Your task to perform on an android device: toggle location history Image 0: 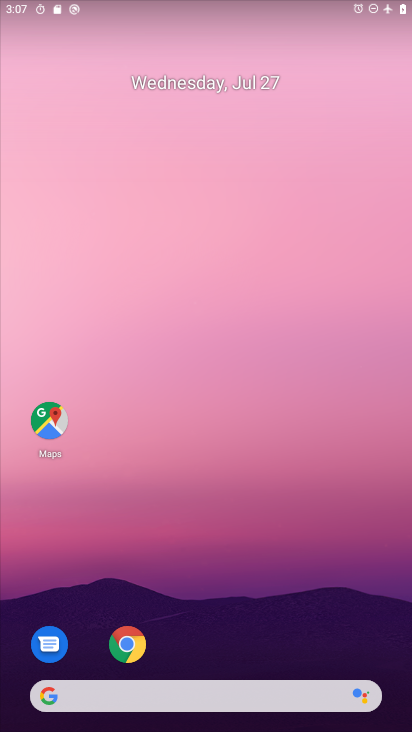
Step 0: drag from (185, 640) to (247, 222)
Your task to perform on an android device: toggle location history Image 1: 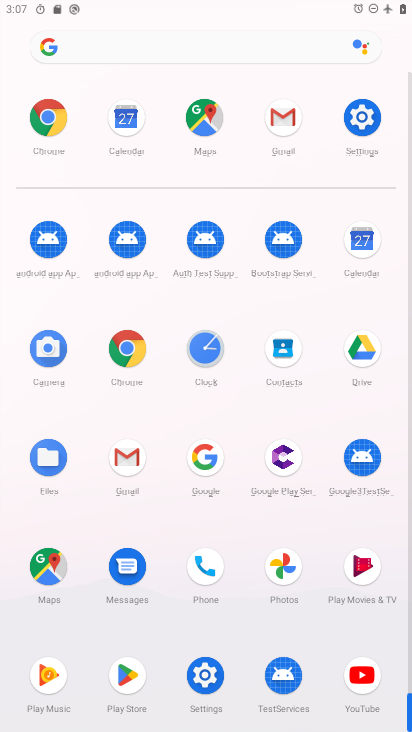
Step 1: click (195, 670)
Your task to perform on an android device: toggle location history Image 2: 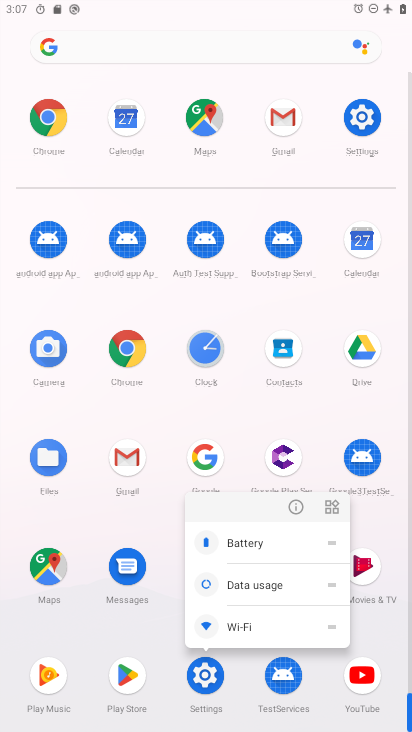
Step 2: click (294, 502)
Your task to perform on an android device: toggle location history Image 3: 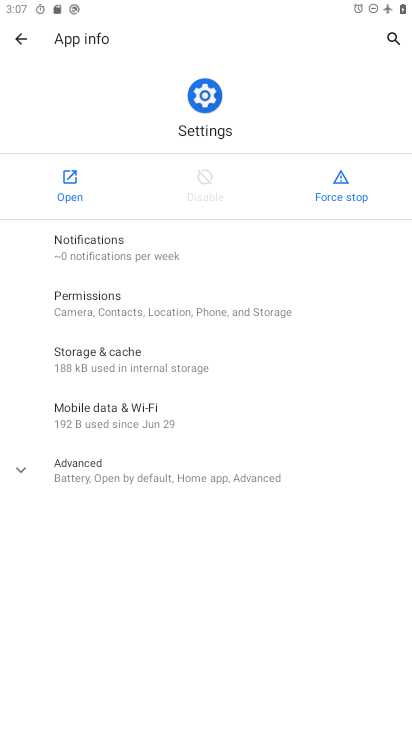
Step 3: click (65, 176)
Your task to perform on an android device: toggle location history Image 4: 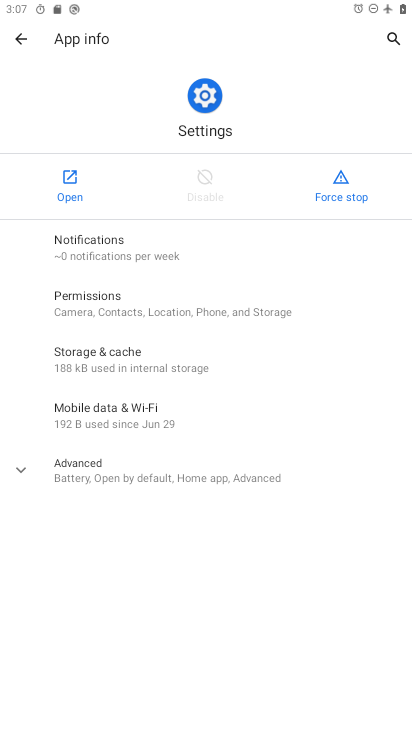
Step 4: click (65, 176)
Your task to perform on an android device: toggle location history Image 5: 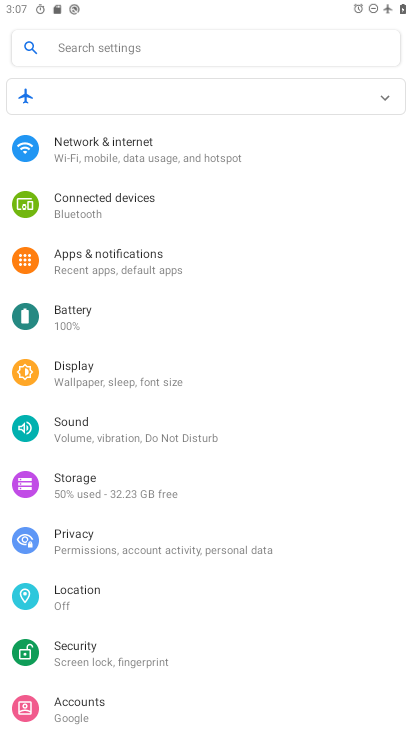
Step 5: click (91, 588)
Your task to perform on an android device: toggle location history Image 6: 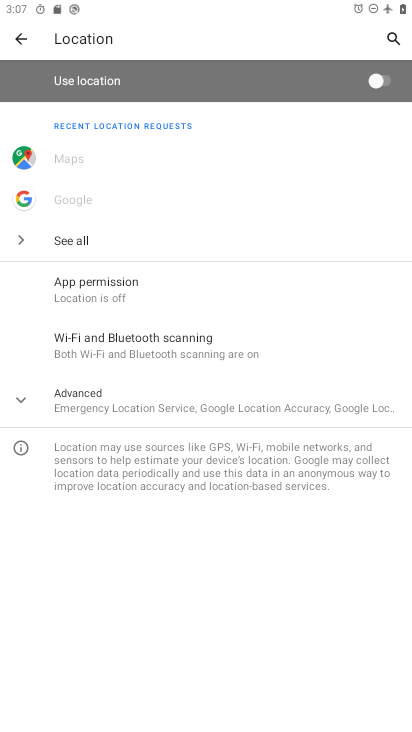
Step 6: click (87, 394)
Your task to perform on an android device: toggle location history Image 7: 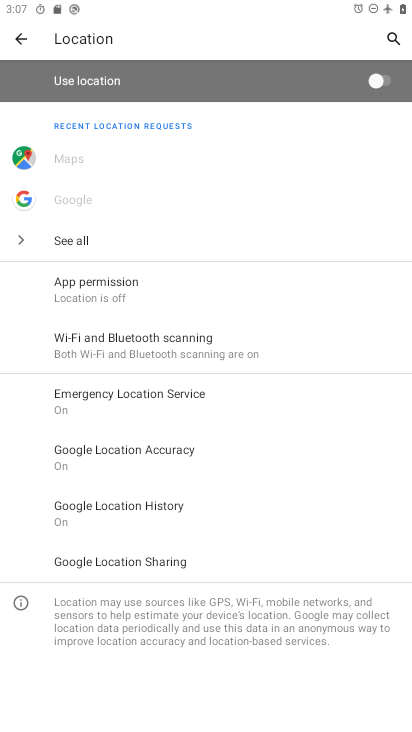
Step 7: click (157, 517)
Your task to perform on an android device: toggle location history Image 8: 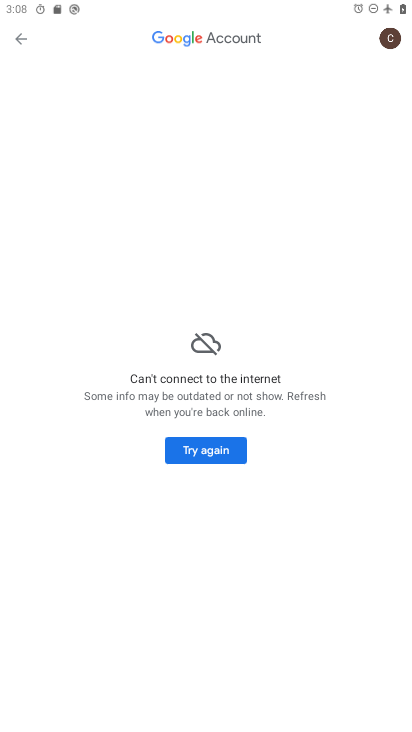
Step 8: drag from (167, 617) to (178, 385)
Your task to perform on an android device: toggle location history Image 9: 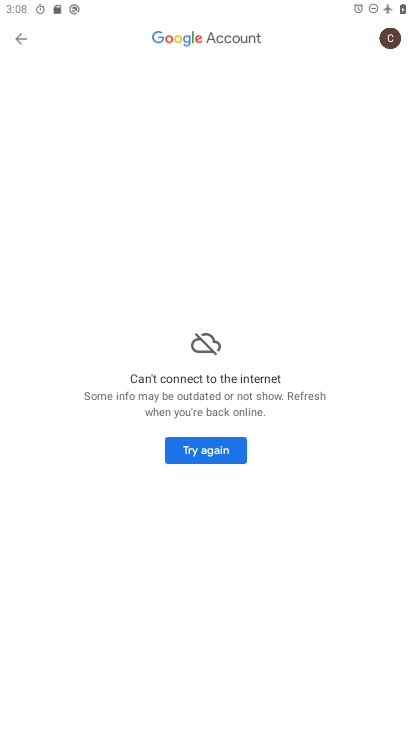
Step 9: drag from (207, 548) to (231, 432)
Your task to perform on an android device: toggle location history Image 10: 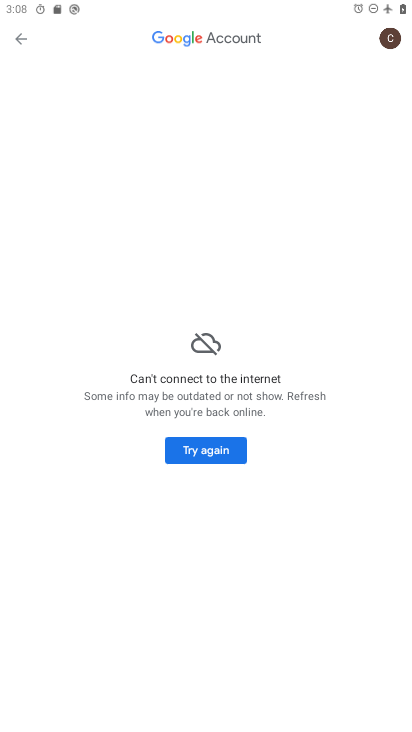
Step 10: drag from (257, 581) to (271, 414)
Your task to perform on an android device: toggle location history Image 11: 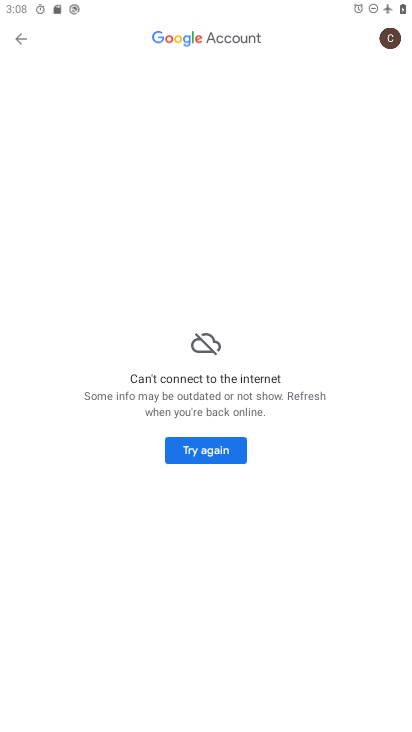
Step 11: drag from (199, 555) to (247, 356)
Your task to perform on an android device: toggle location history Image 12: 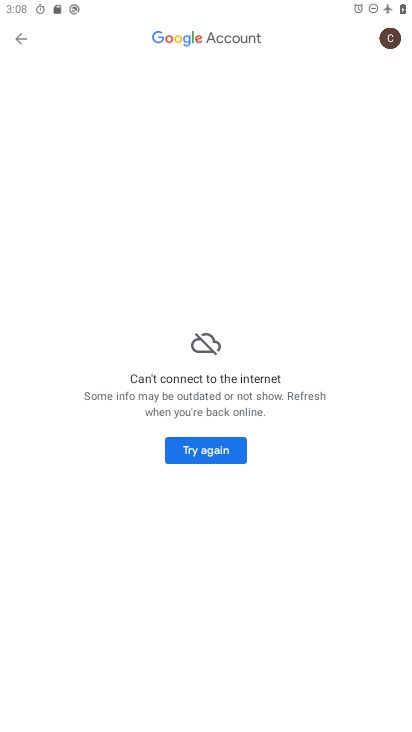
Step 12: click (213, 480)
Your task to perform on an android device: toggle location history Image 13: 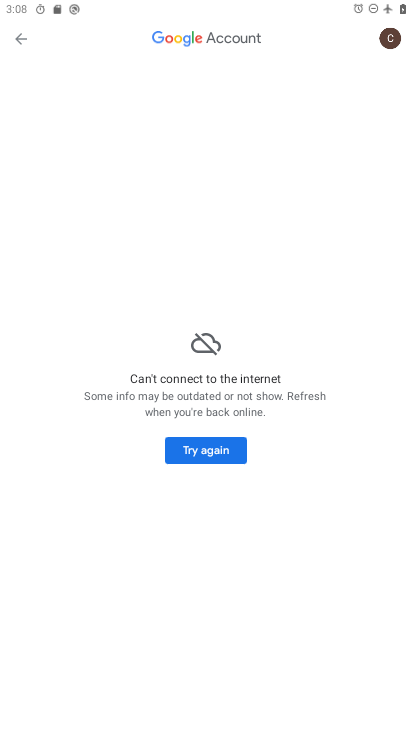
Step 13: click (218, 444)
Your task to perform on an android device: toggle location history Image 14: 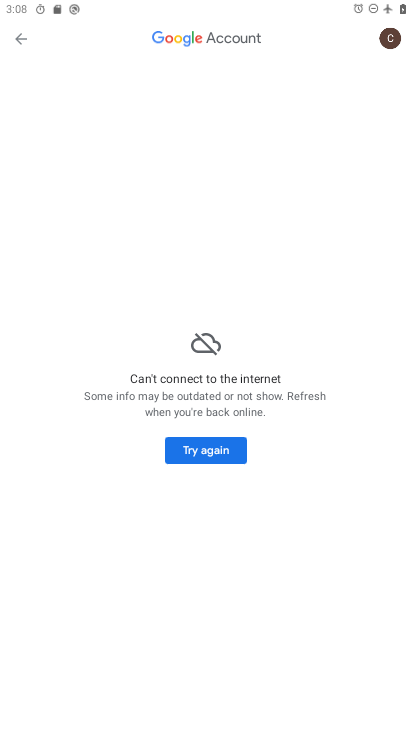
Step 14: task complete